Your task to perform on an android device: Go to display settings Image 0: 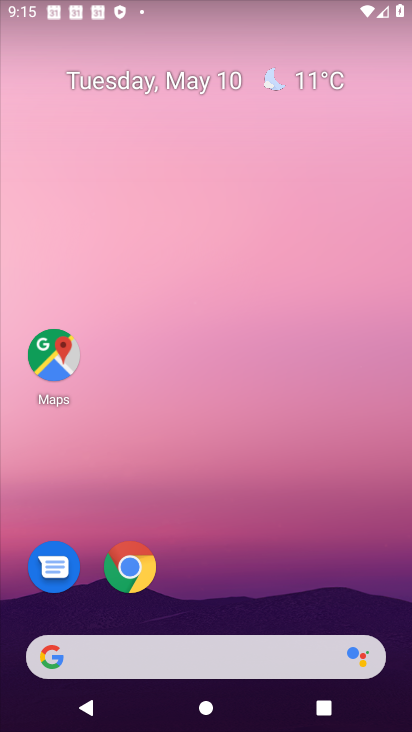
Step 0: click (265, 271)
Your task to perform on an android device: Go to display settings Image 1: 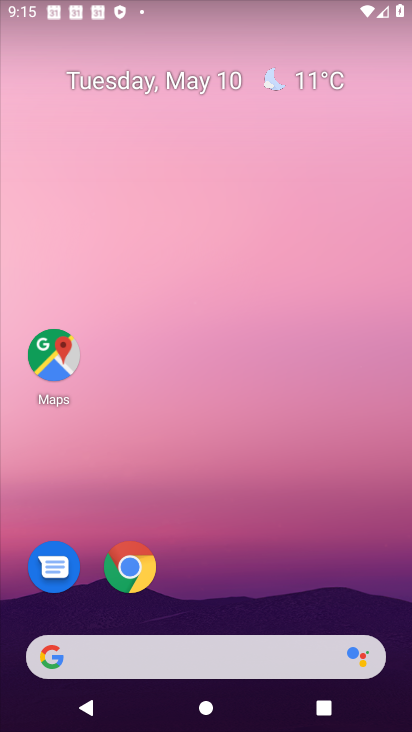
Step 1: click (180, 172)
Your task to perform on an android device: Go to display settings Image 2: 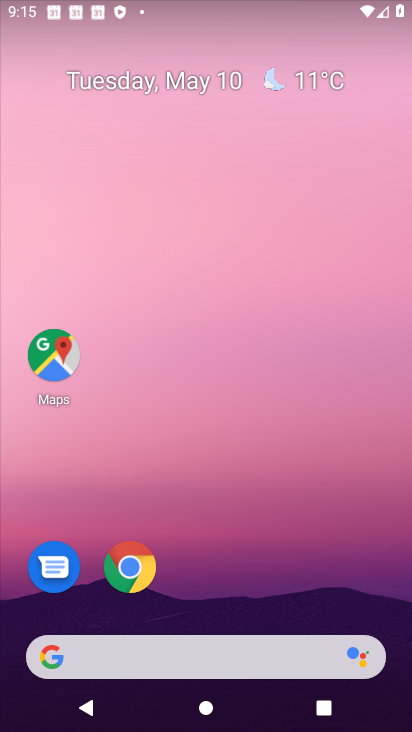
Step 2: click (201, 118)
Your task to perform on an android device: Go to display settings Image 3: 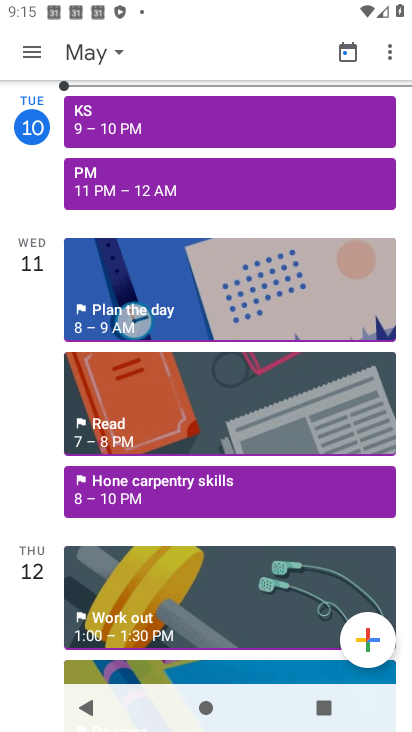
Step 3: click (240, 213)
Your task to perform on an android device: Go to display settings Image 4: 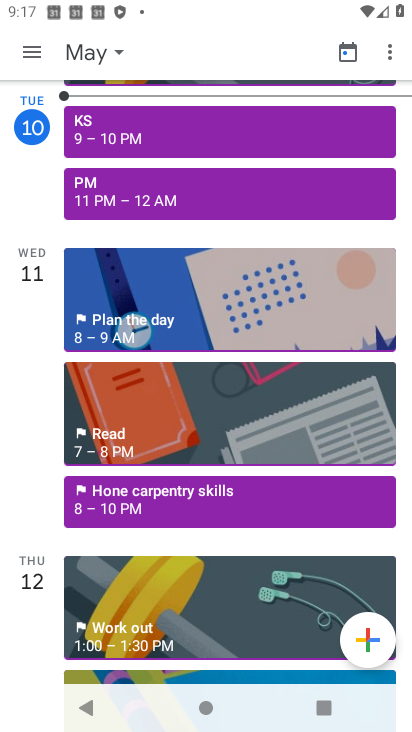
Step 4: press home button
Your task to perform on an android device: Go to display settings Image 5: 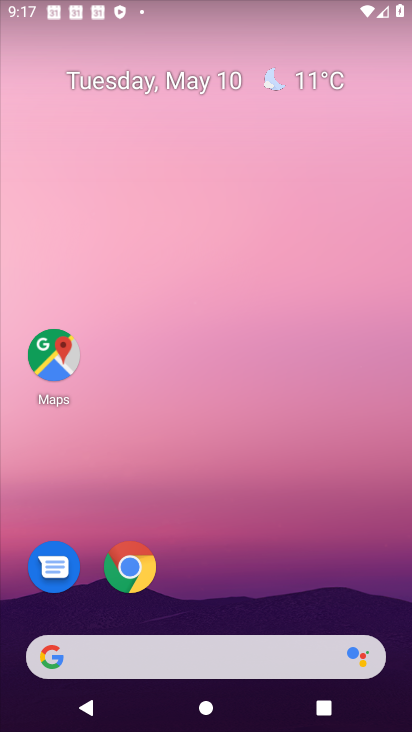
Step 5: drag from (195, 584) to (153, 219)
Your task to perform on an android device: Go to display settings Image 6: 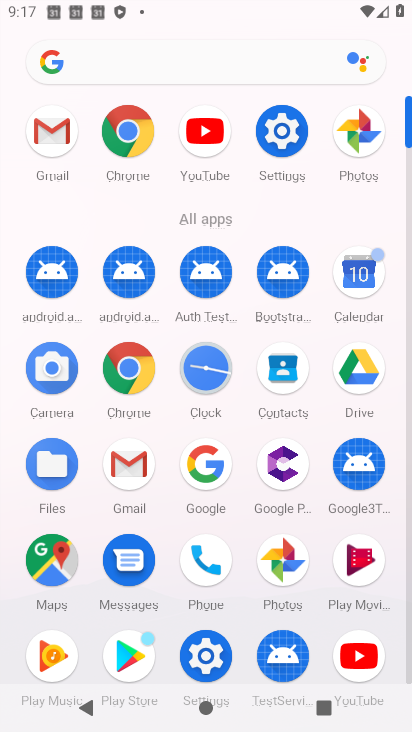
Step 6: click (274, 129)
Your task to perform on an android device: Go to display settings Image 7: 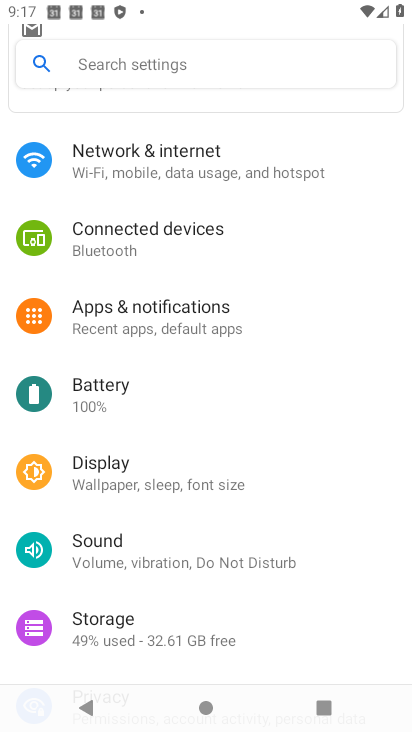
Step 7: drag from (138, 615) to (146, 279)
Your task to perform on an android device: Go to display settings Image 8: 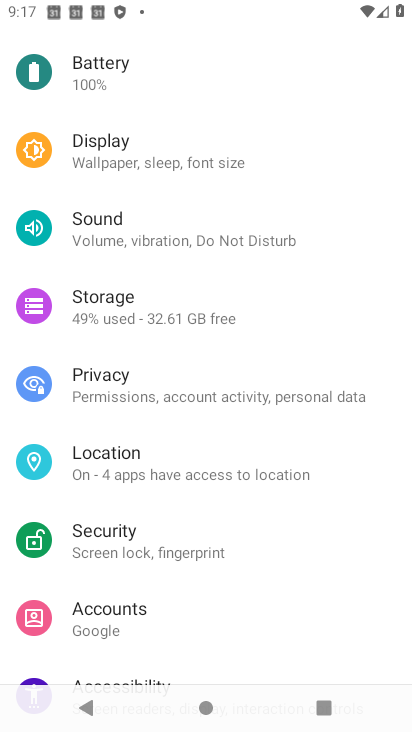
Step 8: click (141, 166)
Your task to perform on an android device: Go to display settings Image 9: 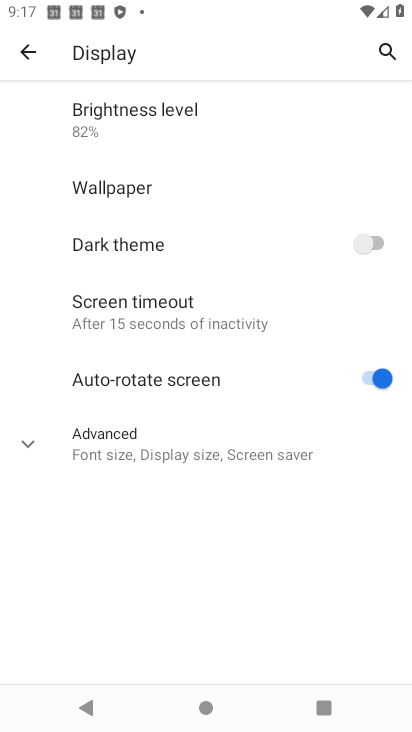
Step 9: click (95, 446)
Your task to perform on an android device: Go to display settings Image 10: 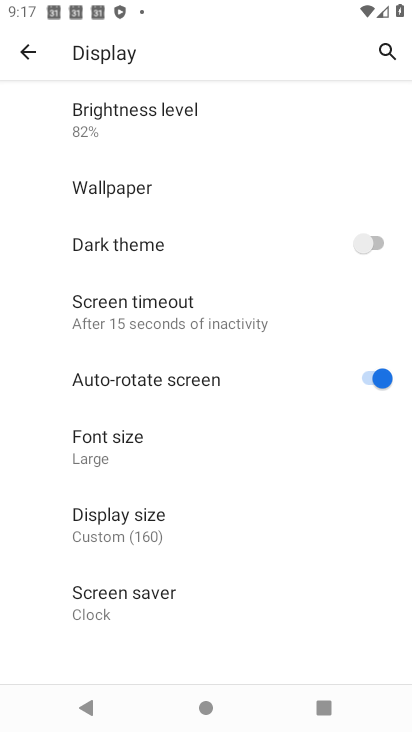
Step 10: task complete